Your task to perform on an android device: Add razer kraken to the cart on bestbuy.com Image 0: 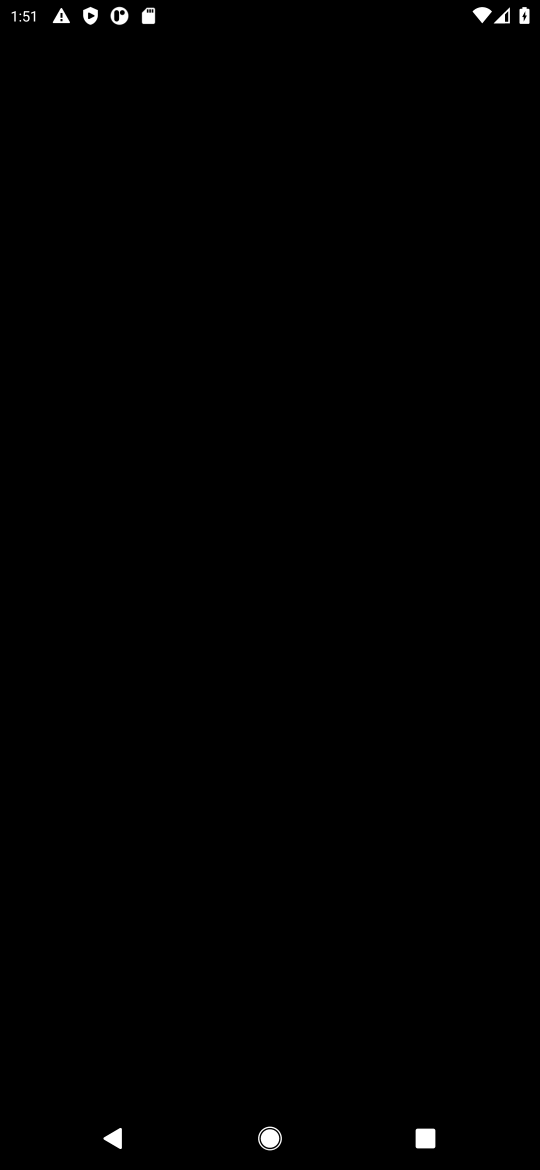
Step 0: press home button
Your task to perform on an android device: Add razer kraken to the cart on bestbuy.com Image 1: 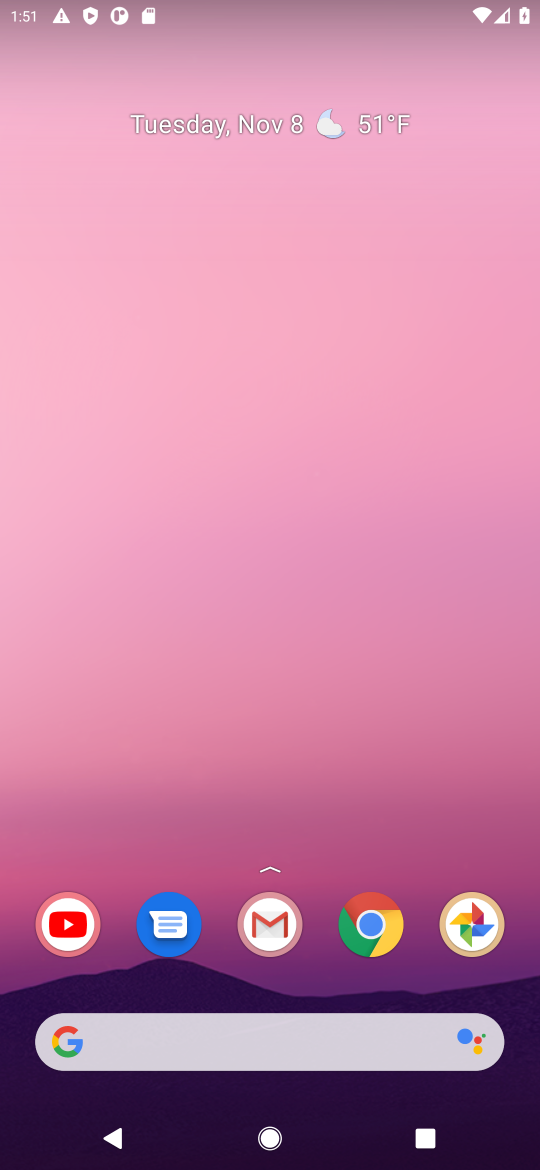
Step 1: click (369, 926)
Your task to perform on an android device: Add razer kraken to the cart on bestbuy.com Image 2: 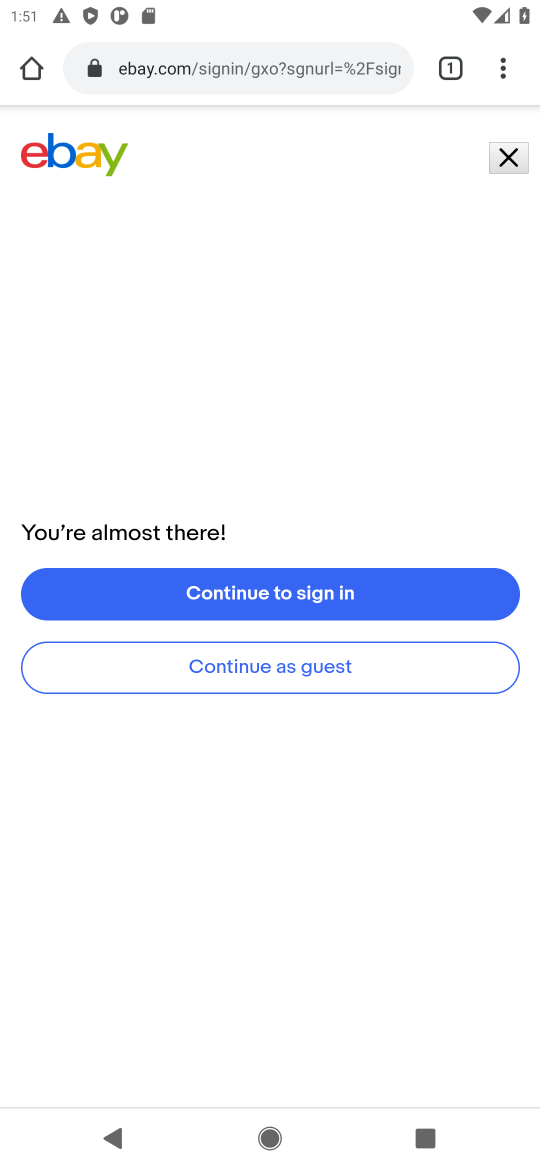
Step 2: click (267, 56)
Your task to perform on an android device: Add razer kraken to the cart on bestbuy.com Image 3: 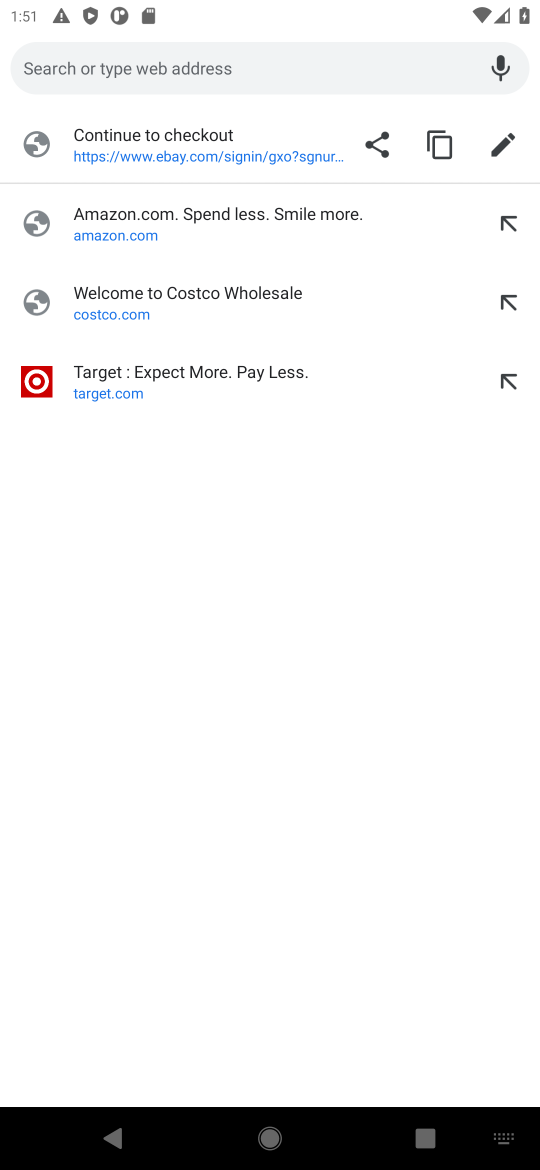
Step 3: type "bestbuy"
Your task to perform on an android device: Add razer kraken to the cart on bestbuy.com Image 4: 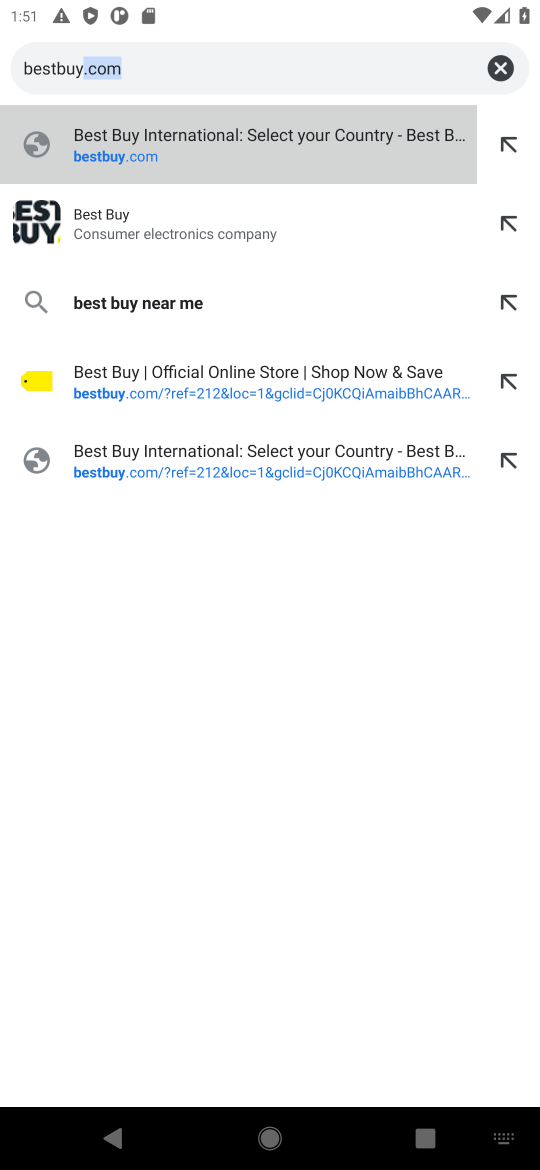
Step 4: click (137, 233)
Your task to perform on an android device: Add razer kraken to the cart on bestbuy.com Image 5: 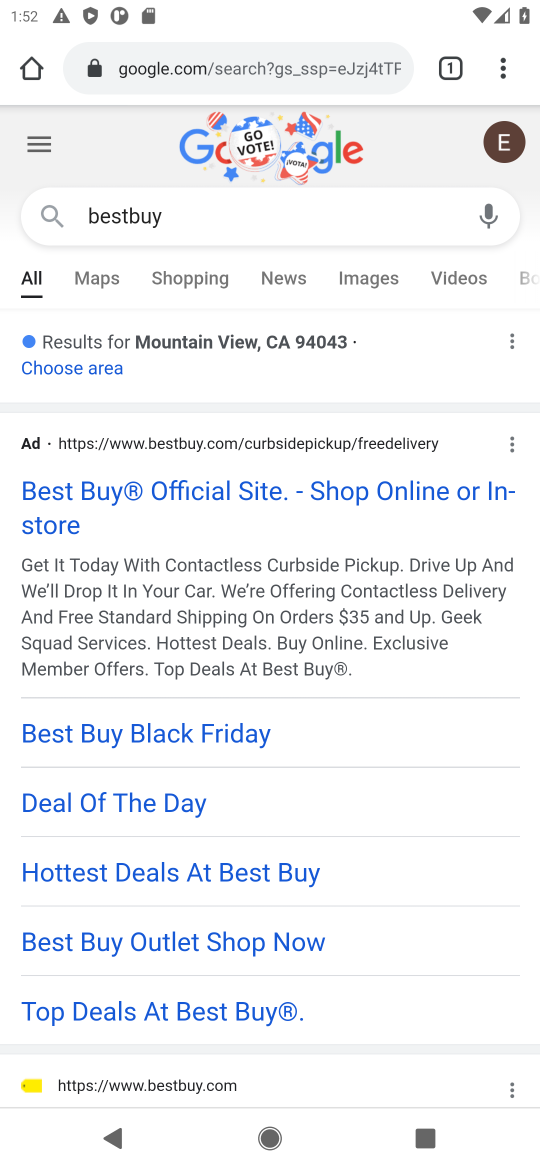
Step 5: drag from (373, 666) to (340, 249)
Your task to perform on an android device: Add razer kraken to the cart on bestbuy.com Image 6: 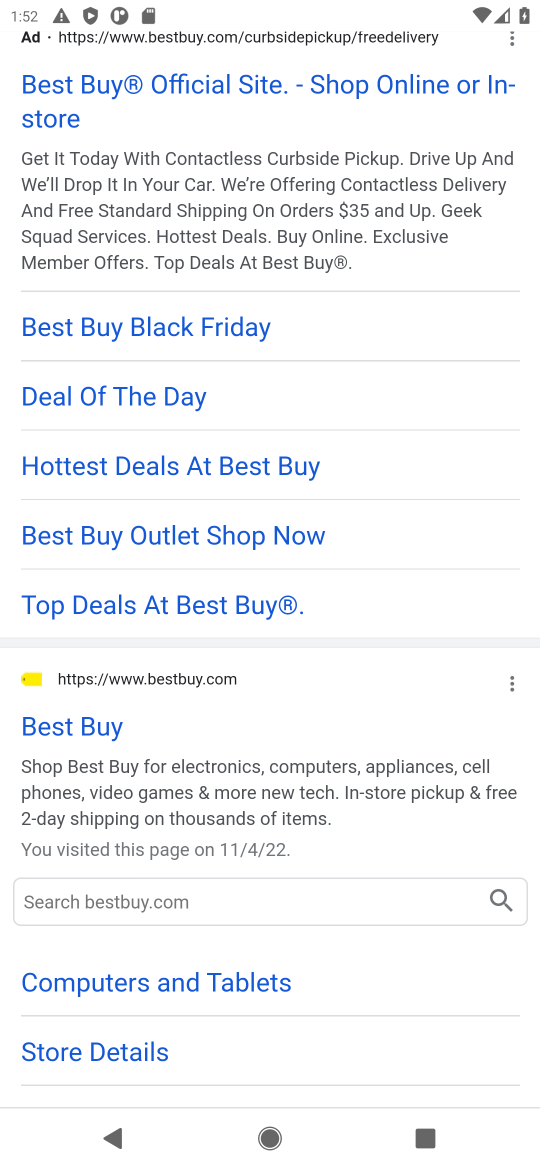
Step 6: click (70, 724)
Your task to perform on an android device: Add razer kraken to the cart on bestbuy.com Image 7: 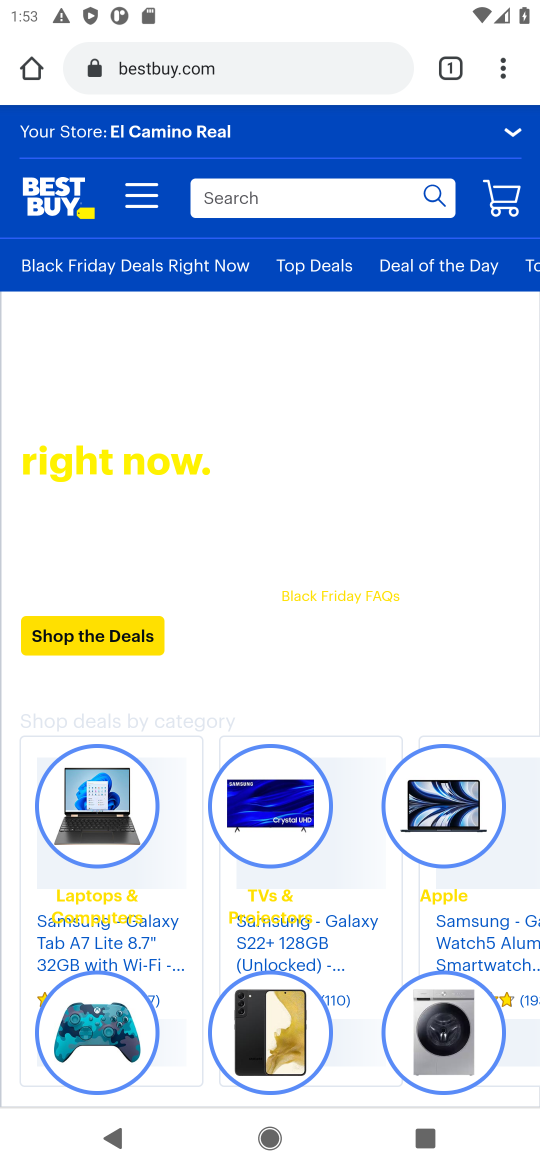
Step 7: click (351, 187)
Your task to perform on an android device: Add razer kraken to the cart on bestbuy.com Image 8: 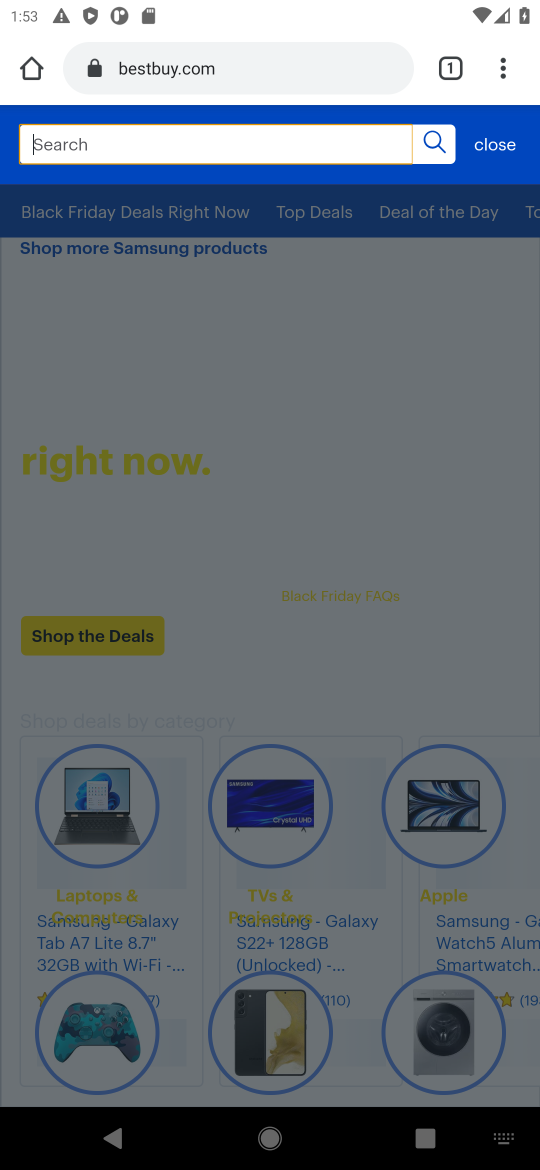
Step 8: type "razer kraken"
Your task to perform on an android device: Add razer kraken to the cart on bestbuy.com Image 9: 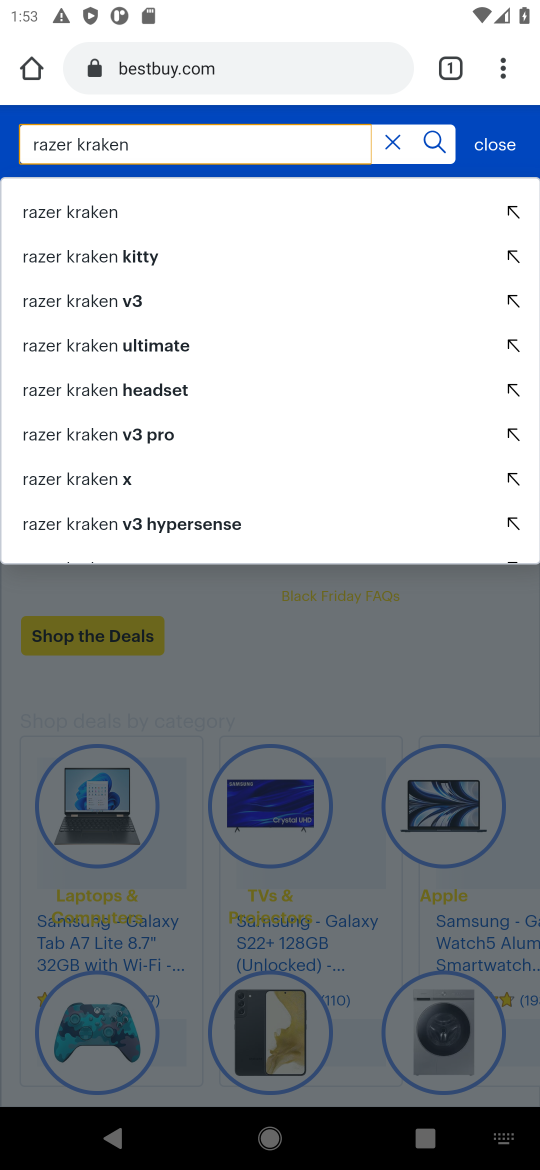
Step 9: click (442, 144)
Your task to perform on an android device: Add razer kraken to the cart on bestbuy.com Image 10: 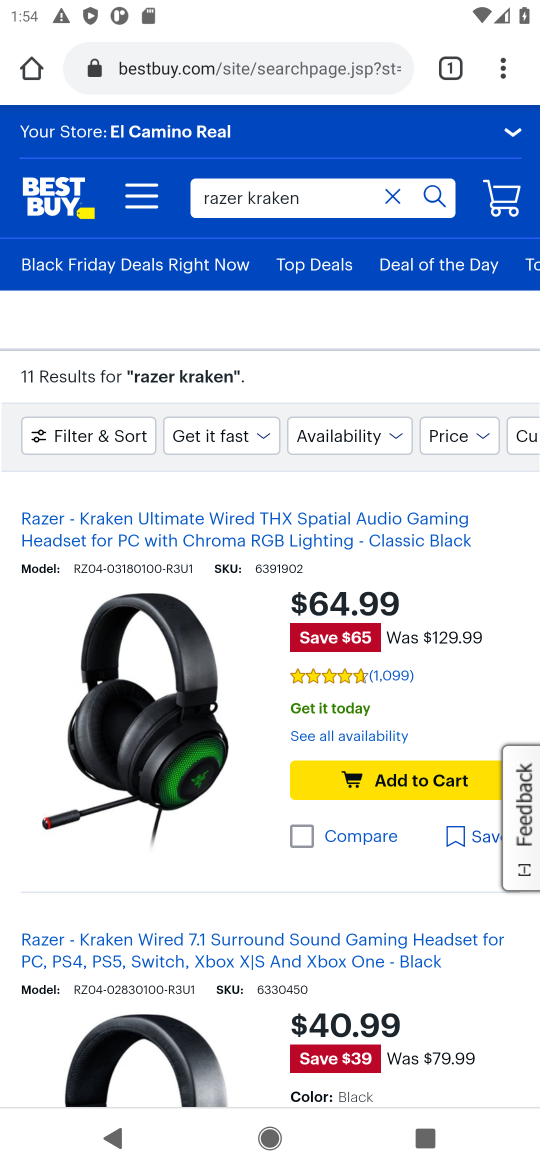
Step 10: click (385, 763)
Your task to perform on an android device: Add razer kraken to the cart on bestbuy.com Image 11: 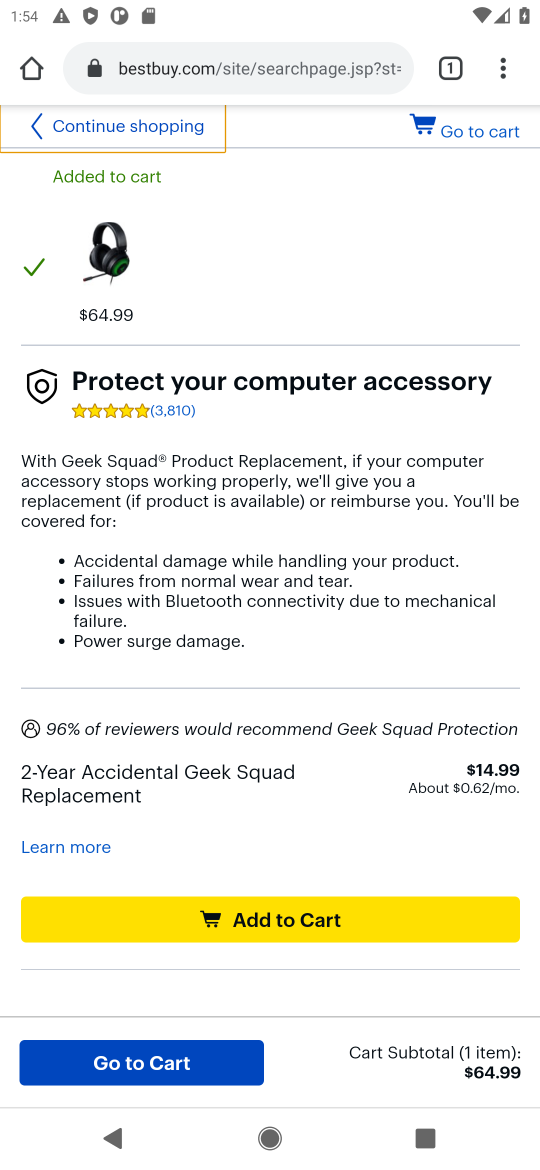
Step 11: task complete